Your task to perform on an android device: set the stopwatch Image 0: 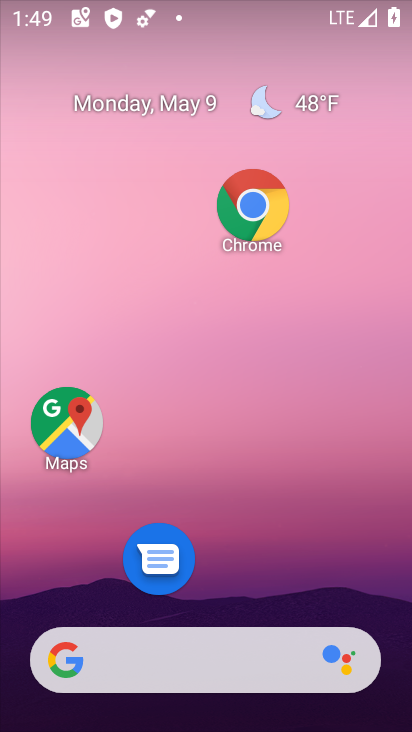
Step 0: drag from (244, 560) to (338, 184)
Your task to perform on an android device: set the stopwatch Image 1: 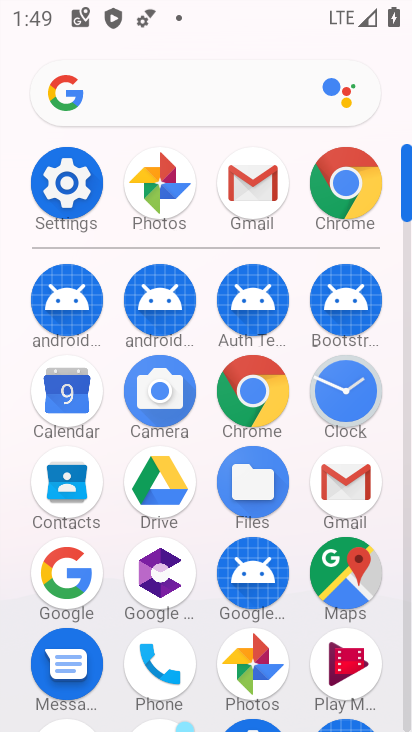
Step 1: click (324, 383)
Your task to perform on an android device: set the stopwatch Image 2: 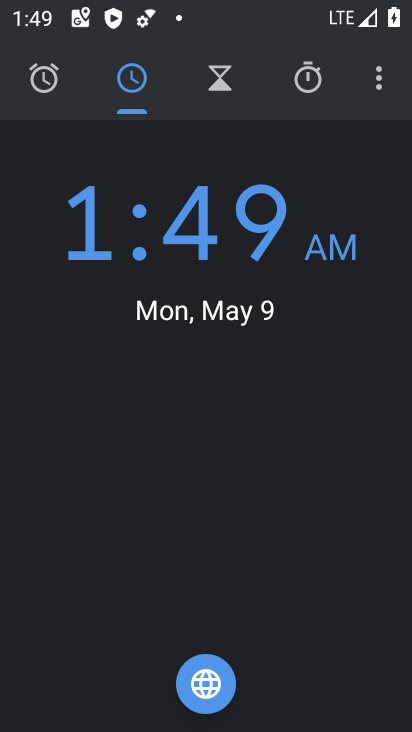
Step 2: click (305, 81)
Your task to perform on an android device: set the stopwatch Image 3: 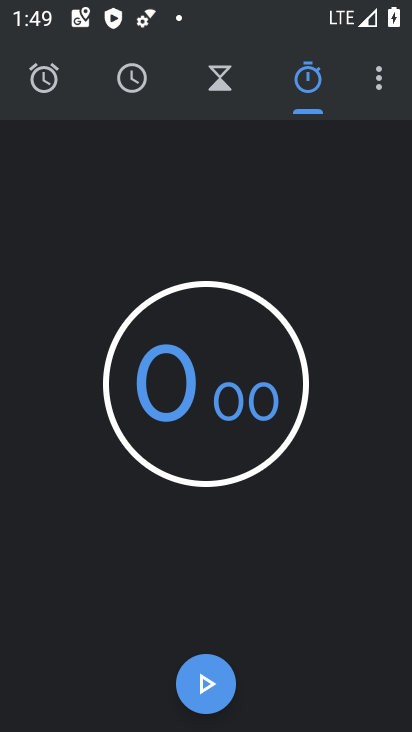
Step 3: click (203, 669)
Your task to perform on an android device: set the stopwatch Image 4: 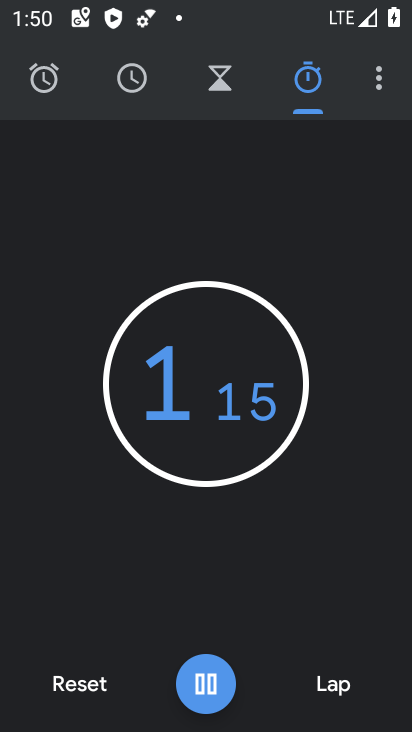
Step 4: click (203, 669)
Your task to perform on an android device: set the stopwatch Image 5: 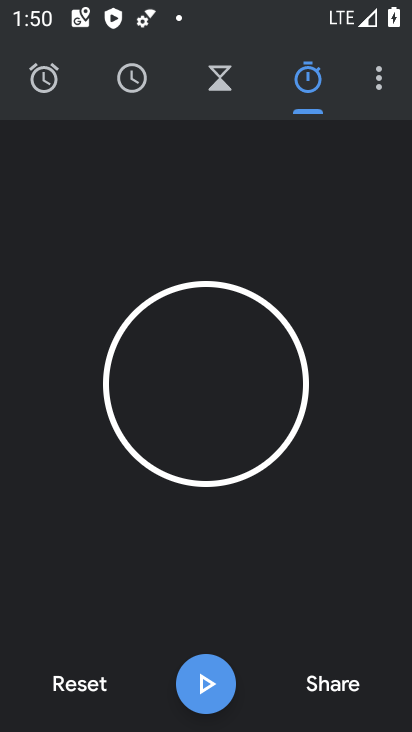
Step 5: click (125, 72)
Your task to perform on an android device: set the stopwatch Image 6: 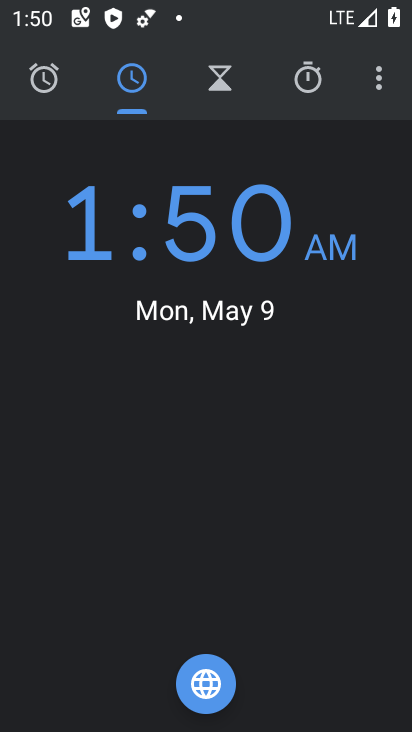
Step 6: click (215, 74)
Your task to perform on an android device: set the stopwatch Image 7: 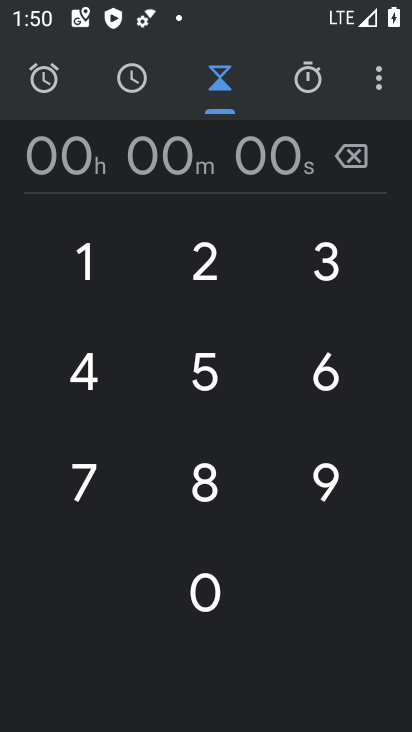
Step 7: click (68, 156)
Your task to perform on an android device: set the stopwatch Image 8: 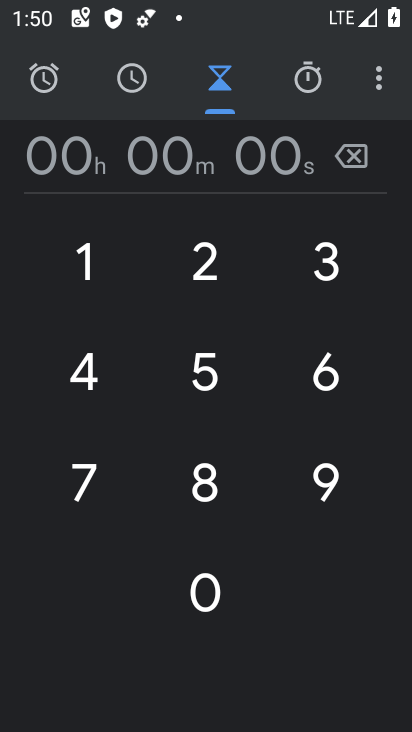
Step 8: type "0090909"
Your task to perform on an android device: set the stopwatch Image 9: 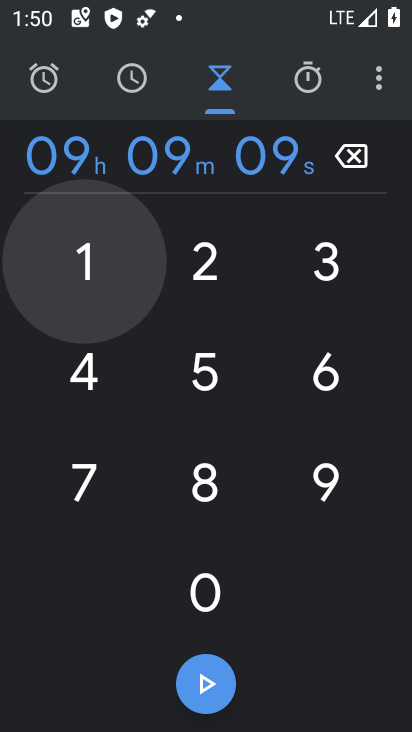
Step 9: click (229, 679)
Your task to perform on an android device: set the stopwatch Image 10: 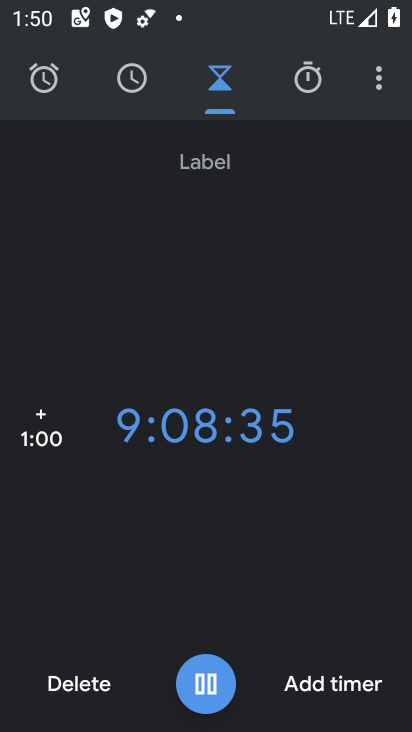
Step 10: task complete